Your task to perform on an android device: Search for sushi restaurants on Maps Image 0: 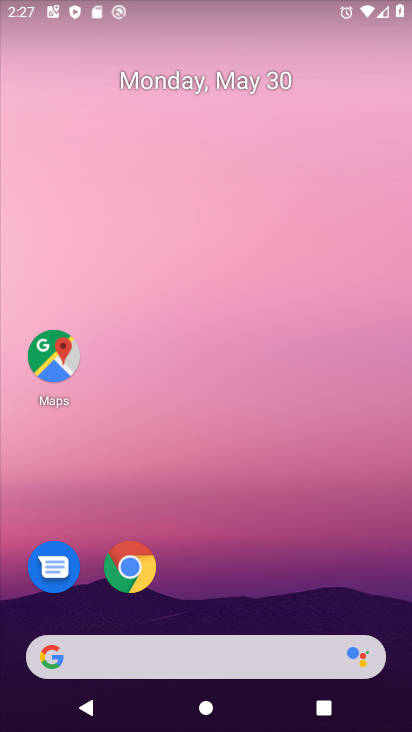
Step 0: click (52, 353)
Your task to perform on an android device: Search for sushi restaurants on Maps Image 1: 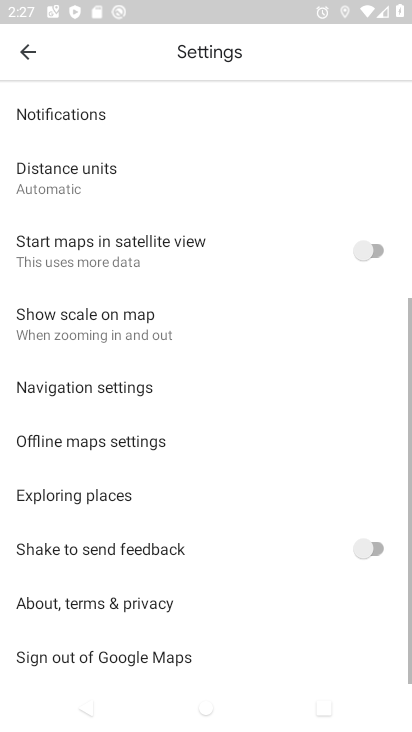
Step 1: click (23, 43)
Your task to perform on an android device: Search for sushi restaurants on Maps Image 2: 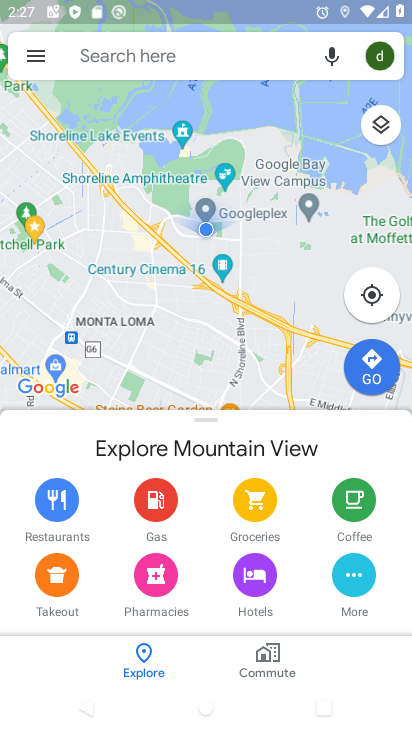
Step 2: click (213, 57)
Your task to perform on an android device: Search for sushi restaurants on Maps Image 3: 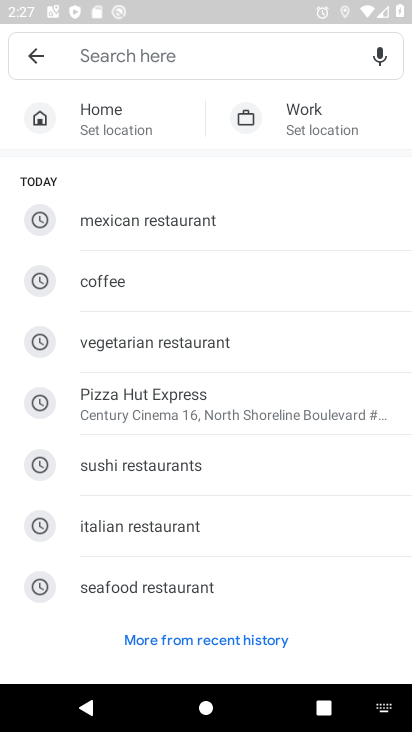
Step 3: type "Sushi restaurants"
Your task to perform on an android device: Search for sushi restaurants on Maps Image 4: 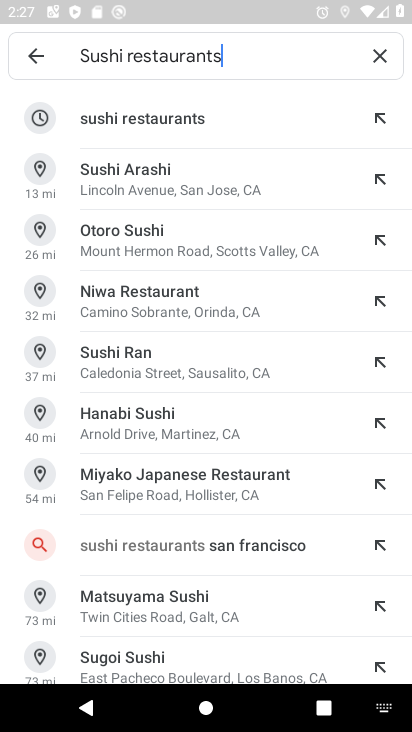
Step 4: click (179, 120)
Your task to perform on an android device: Search for sushi restaurants on Maps Image 5: 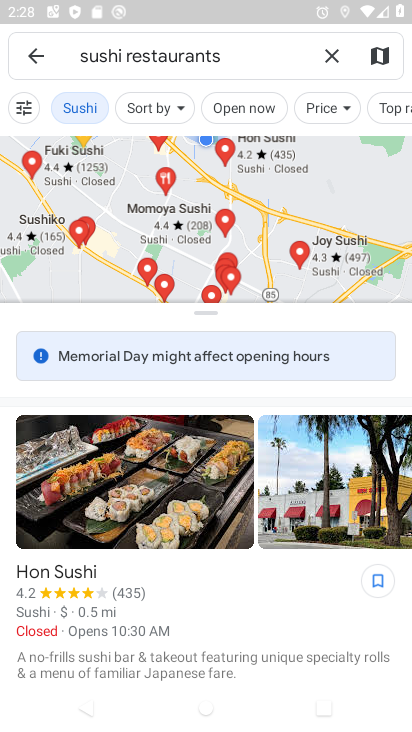
Step 5: task complete